Your task to perform on an android device: turn off wifi Image 0: 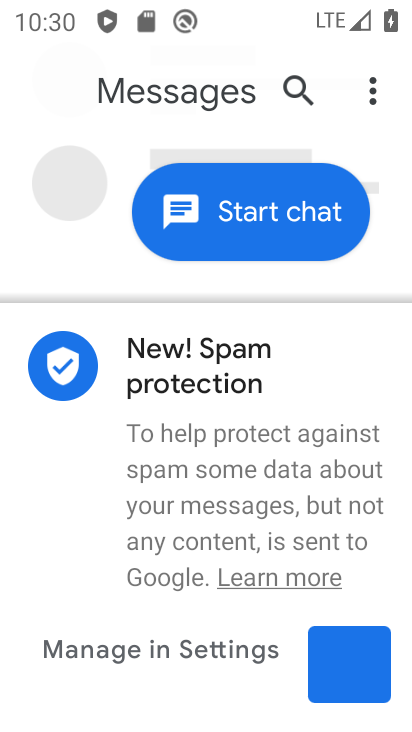
Step 0: press home button
Your task to perform on an android device: turn off wifi Image 1: 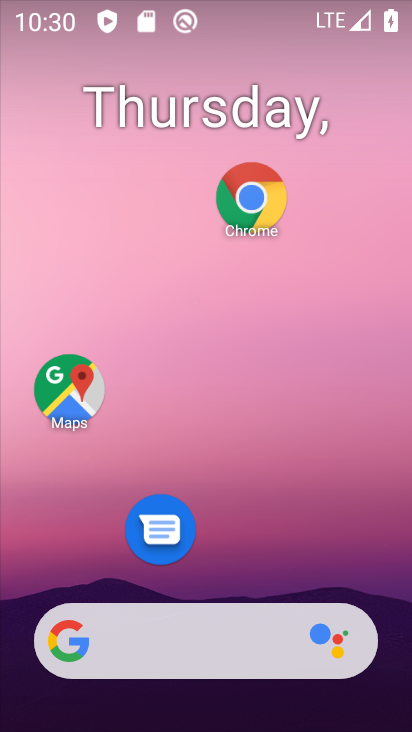
Step 1: drag from (240, 557) to (203, 121)
Your task to perform on an android device: turn off wifi Image 2: 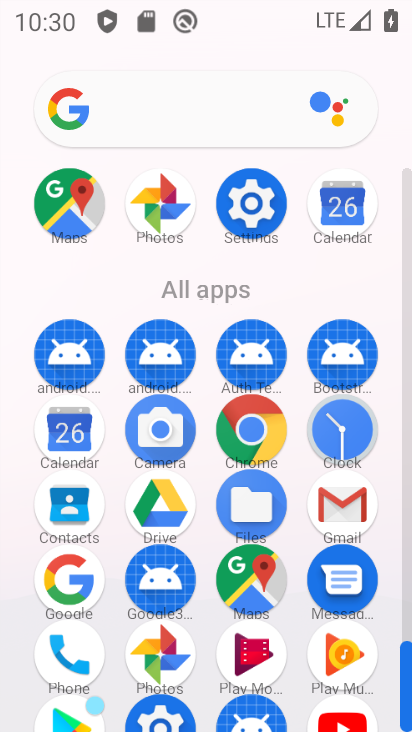
Step 2: click (247, 201)
Your task to perform on an android device: turn off wifi Image 3: 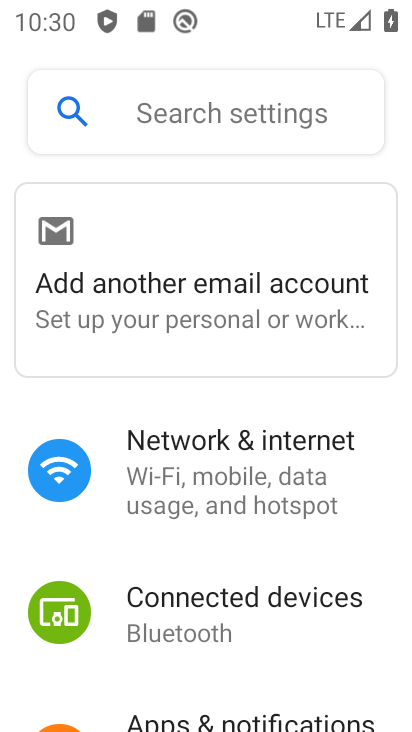
Step 3: click (180, 466)
Your task to perform on an android device: turn off wifi Image 4: 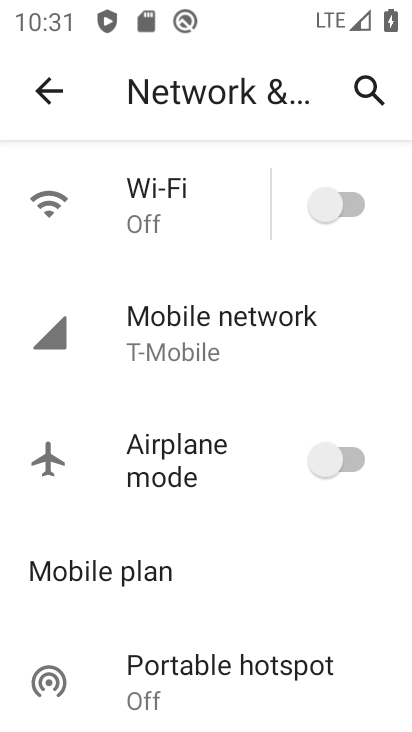
Step 4: task complete